Your task to perform on an android device: toggle javascript in the chrome app Image 0: 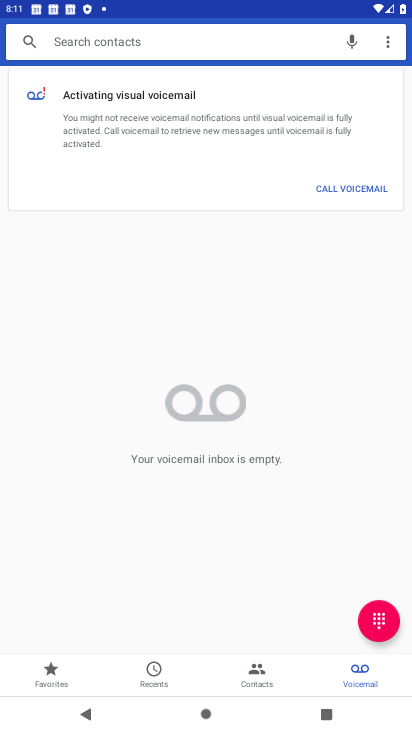
Step 0: press home button
Your task to perform on an android device: toggle javascript in the chrome app Image 1: 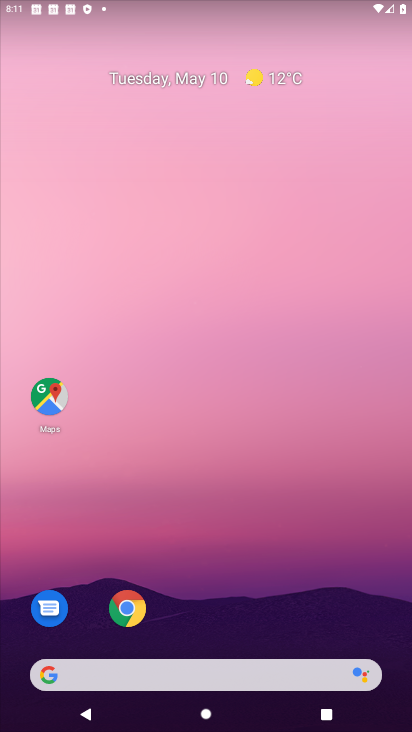
Step 1: click (119, 626)
Your task to perform on an android device: toggle javascript in the chrome app Image 2: 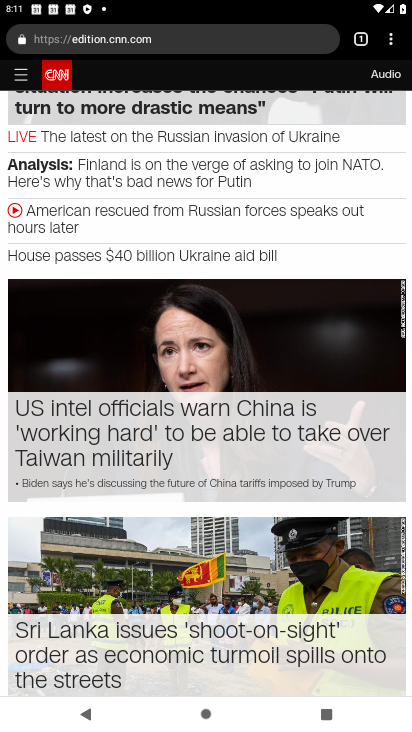
Step 2: drag from (395, 44) to (291, 439)
Your task to perform on an android device: toggle javascript in the chrome app Image 3: 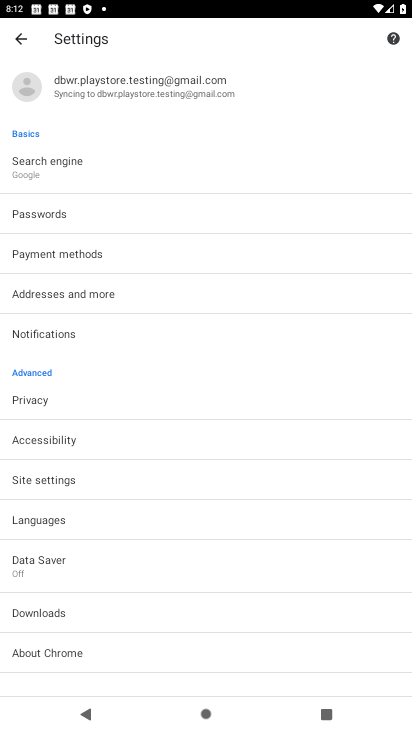
Step 3: click (49, 478)
Your task to perform on an android device: toggle javascript in the chrome app Image 4: 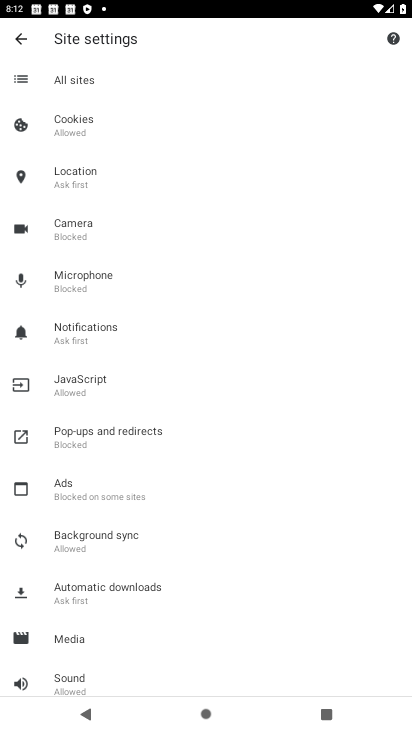
Step 4: click (64, 381)
Your task to perform on an android device: toggle javascript in the chrome app Image 5: 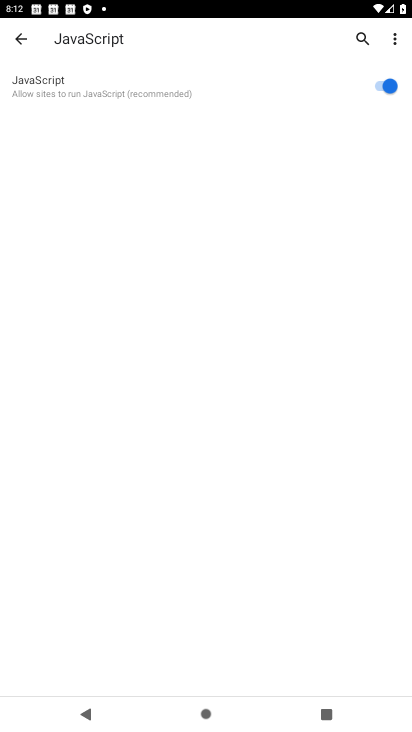
Step 5: click (396, 90)
Your task to perform on an android device: toggle javascript in the chrome app Image 6: 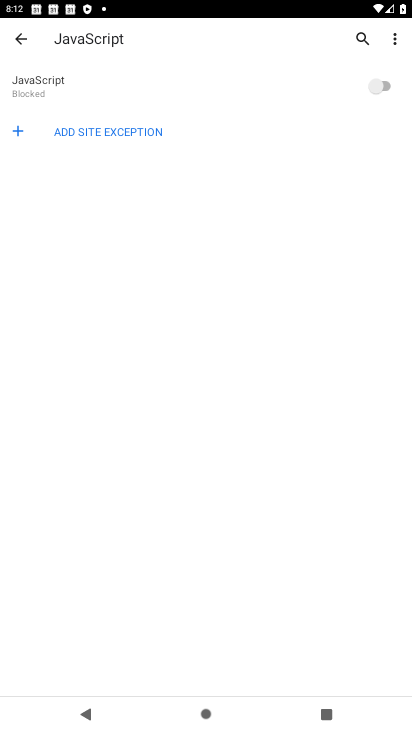
Step 6: task complete